Your task to perform on an android device: make emails show in primary in the gmail app Image 0: 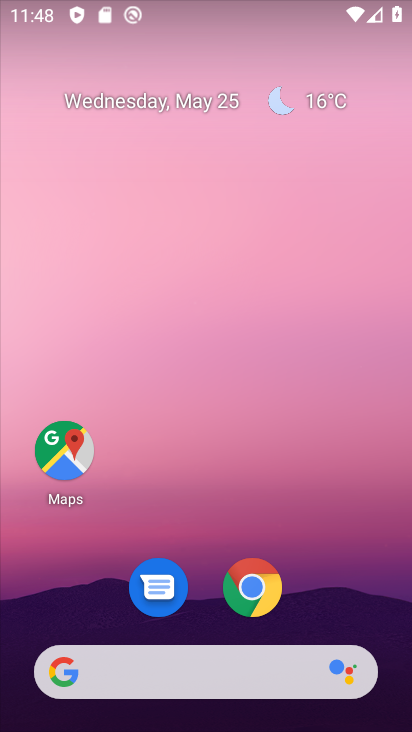
Step 0: drag from (181, 675) to (217, 402)
Your task to perform on an android device: make emails show in primary in the gmail app Image 1: 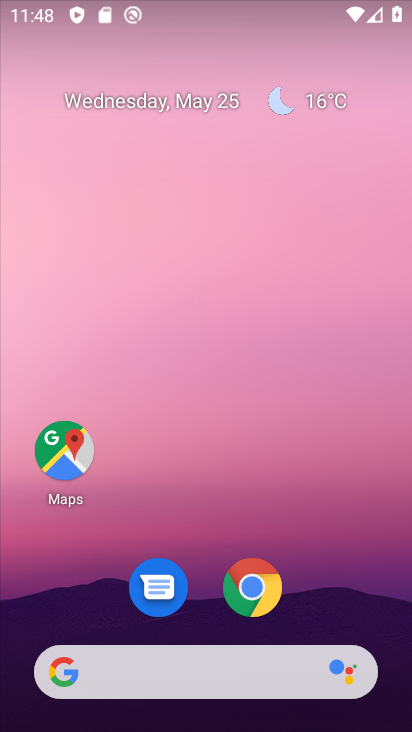
Step 1: drag from (163, 611) to (188, 426)
Your task to perform on an android device: make emails show in primary in the gmail app Image 2: 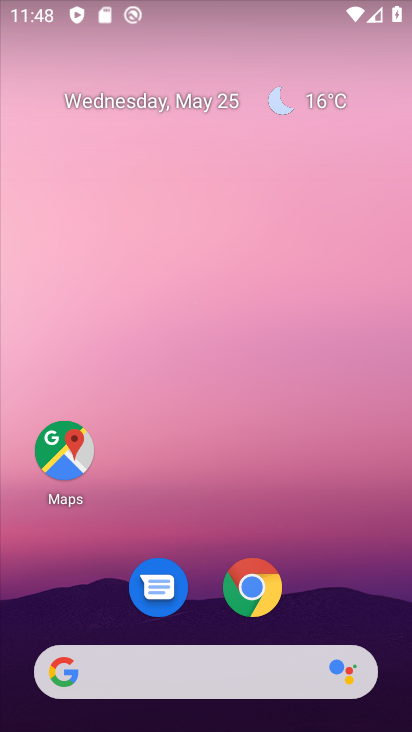
Step 2: click (188, 426)
Your task to perform on an android device: make emails show in primary in the gmail app Image 3: 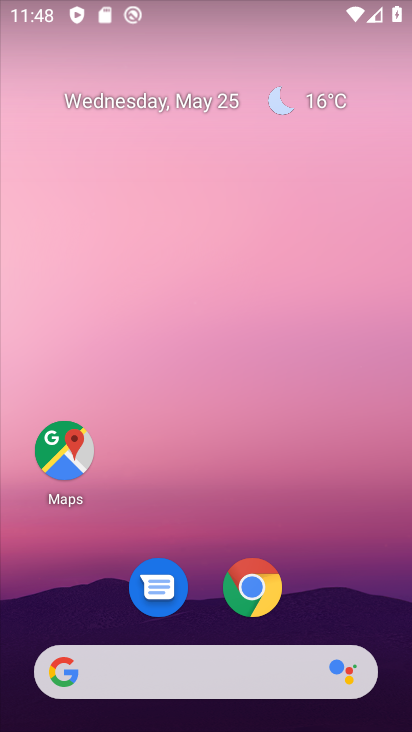
Step 3: drag from (173, 706) to (246, 317)
Your task to perform on an android device: make emails show in primary in the gmail app Image 4: 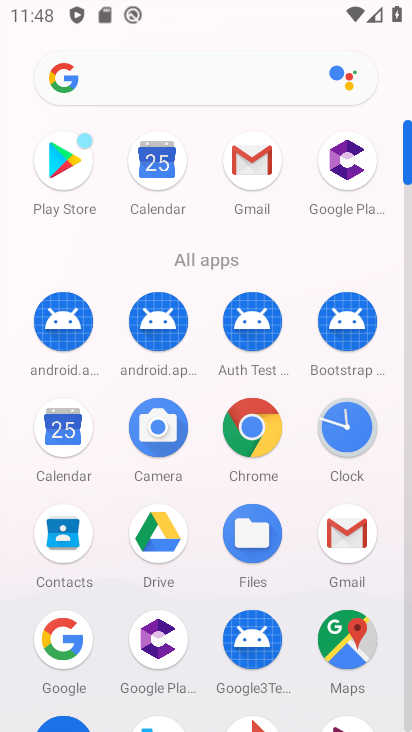
Step 4: click (349, 542)
Your task to perform on an android device: make emails show in primary in the gmail app Image 5: 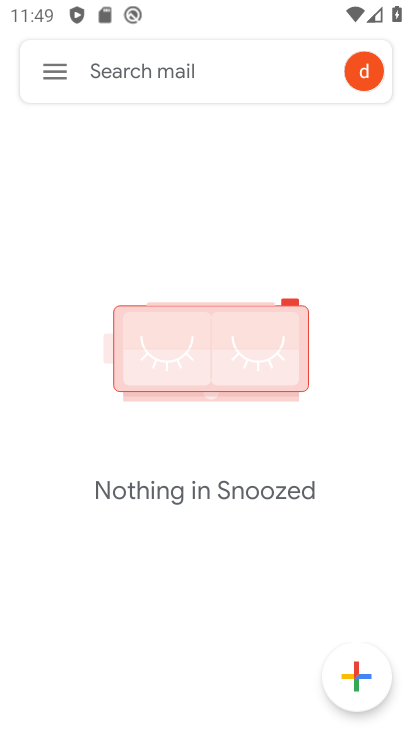
Step 5: click (49, 59)
Your task to perform on an android device: make emails show in primary in the gmail app Image 6: 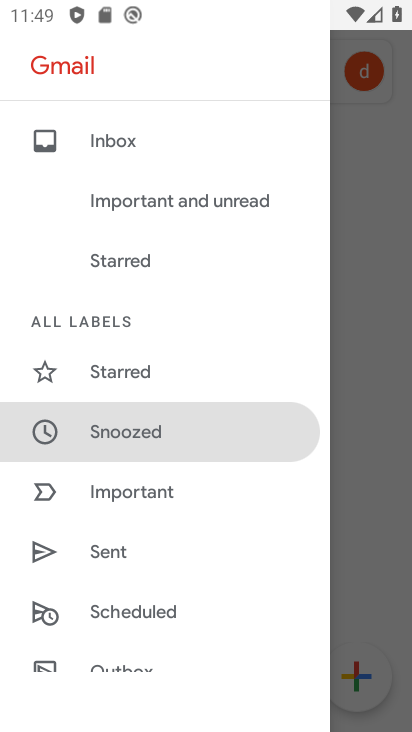
Step 6: drag from (147, 615) to (162, 228)
Your task to perform on an android device: make emails show in primary in the gmail app Image 7: 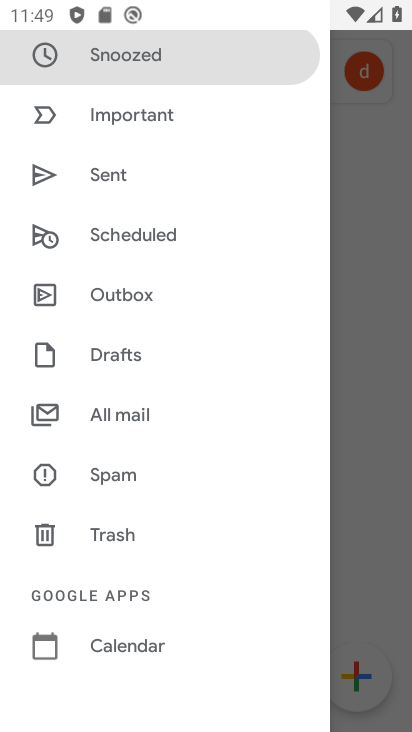
Step 7: drag from (150, 584) to (134, 148)
Your task to perform on an android device: make emails show in primary in the gmail app Image 8: 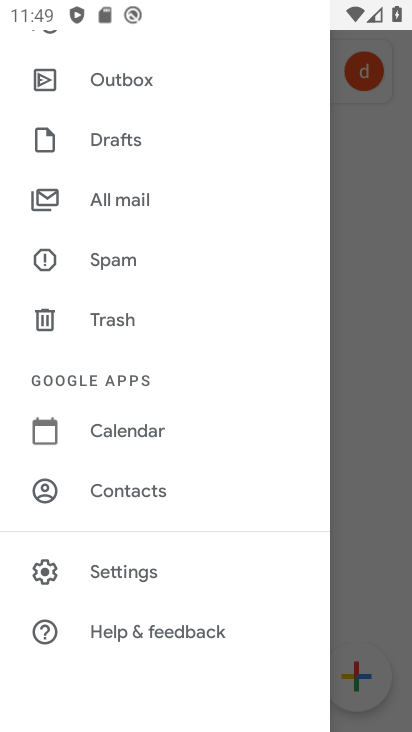
Step 8: click (127, 572)
Your task to perform on an android device: make emails show in primary in the gmail app Image 9: 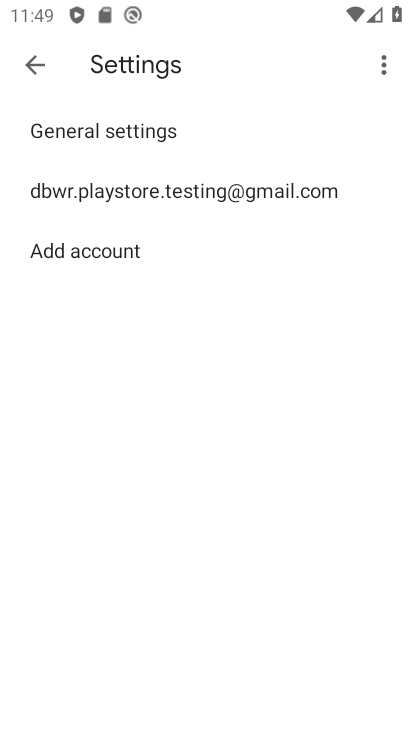
Step 9: click (170, 187)
Your task to perform on an android device: make emails show in primary in the gmail app Image 10: 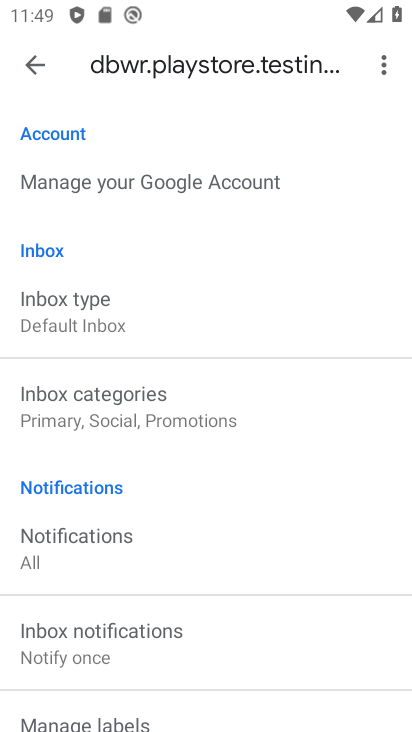
Step 10: click (149, 311)
Your task to perform on an android device: make emails show in primary in the gmail app Image 11: 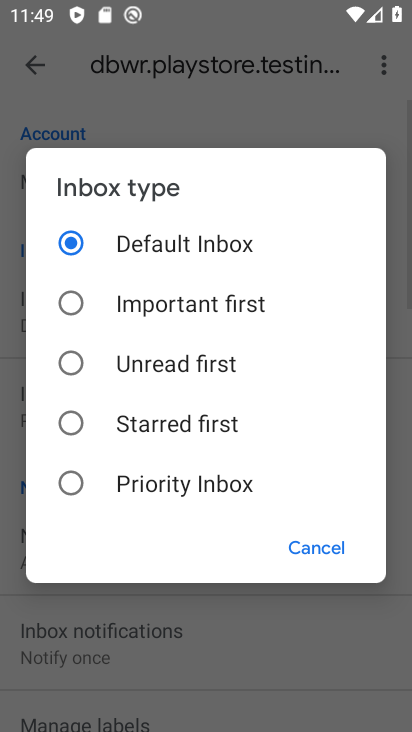
Step 11: click (156, 257)
Your task to perform on an android device: make emails show in primary in the gmail app Image 12: 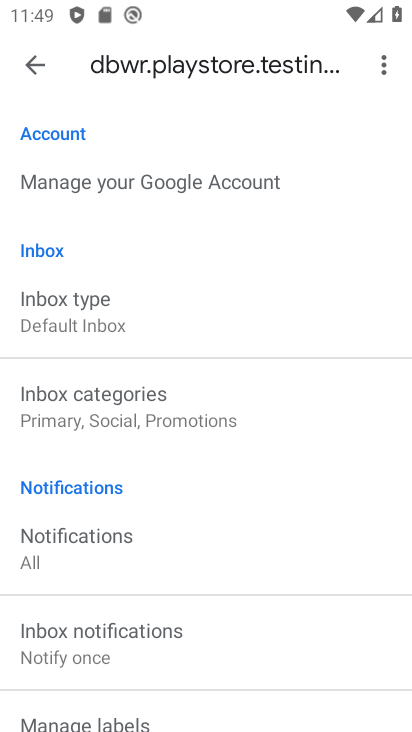
Step 12: click (148, 404)
Your task to perform on an android device: make emails show in primary in the gmail app Image 13: 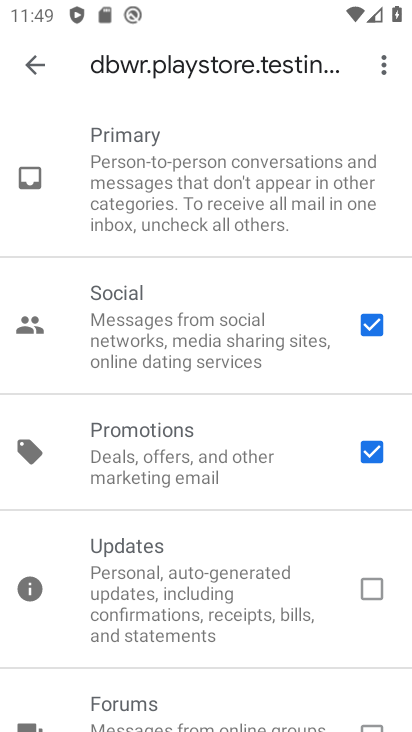
Step 13: click (374, 331)
Your task to perform on an android device: make emails show in primary in the gmail app Image 14: 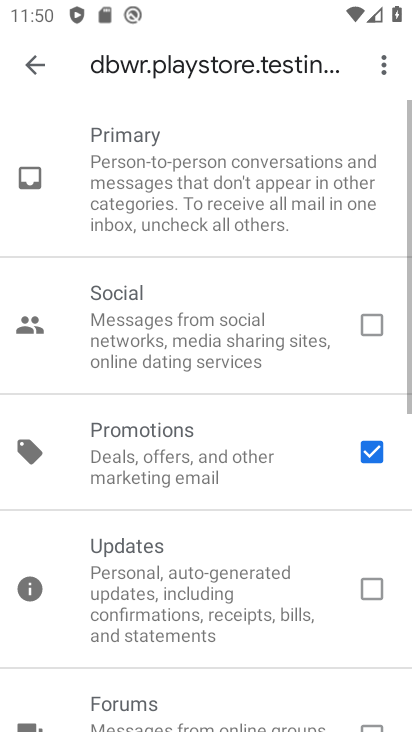
Step 14: click (381, 443)
Your task to perform on an android device: make emails show in primary in the gmail app Image 15: 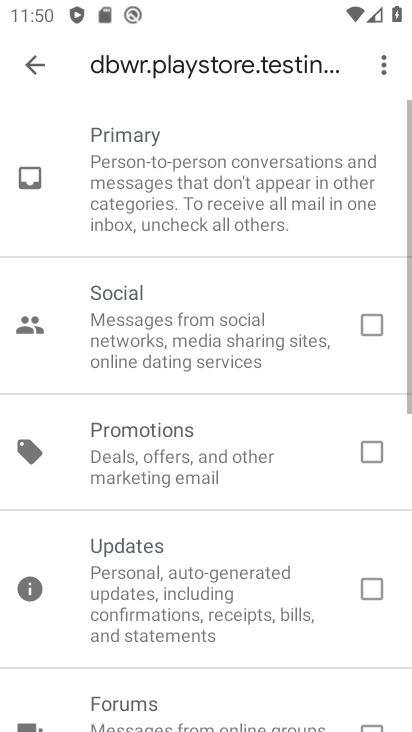
Step 15: task complete